Your task to perform on an android device: check out phone information Image 0: 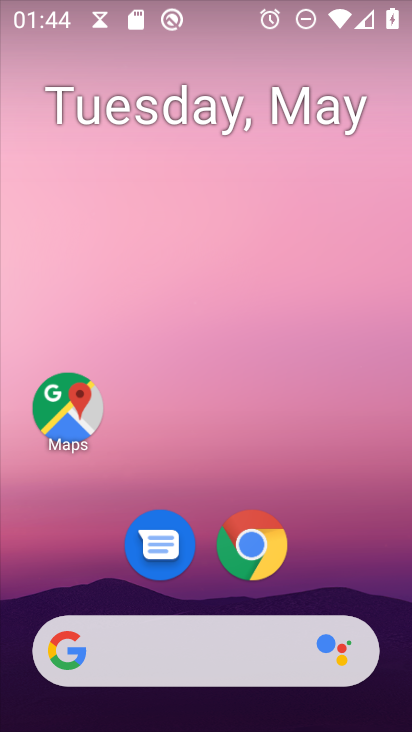
Step 0: drag from (329, 591) to (312, 0)
Your task to perform on an android device: check out phone information Image 1: 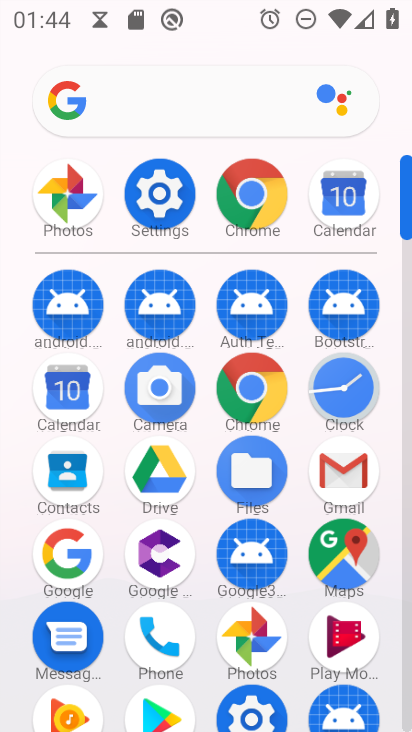
Step 1: click (157, 201)
Your task to perform on an android device: check out phone information Image 2: 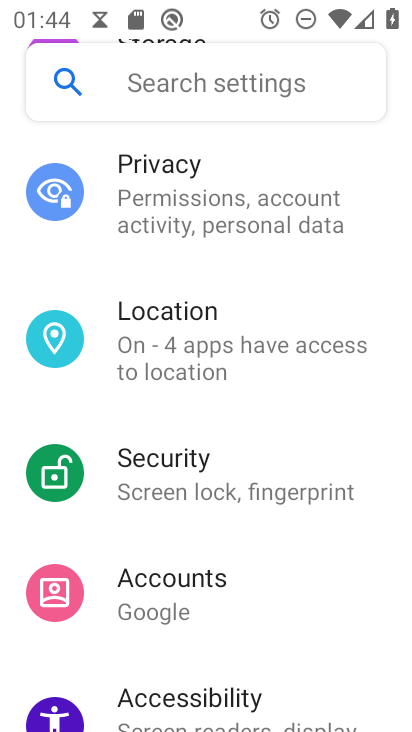
Step 2: drag from (205, 600) to (273, 243)
Your task to perform on an android device: check out phone information Image 3: 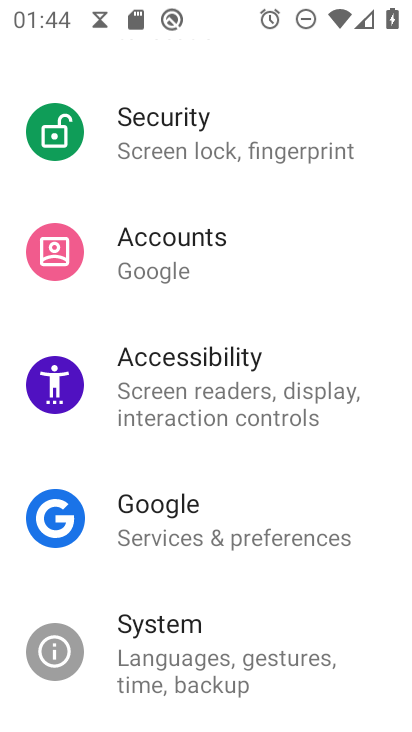
Step 3: drag from (243, 581) to (248, 217)
Your task to perform on an android device: check out phone information Image 4: 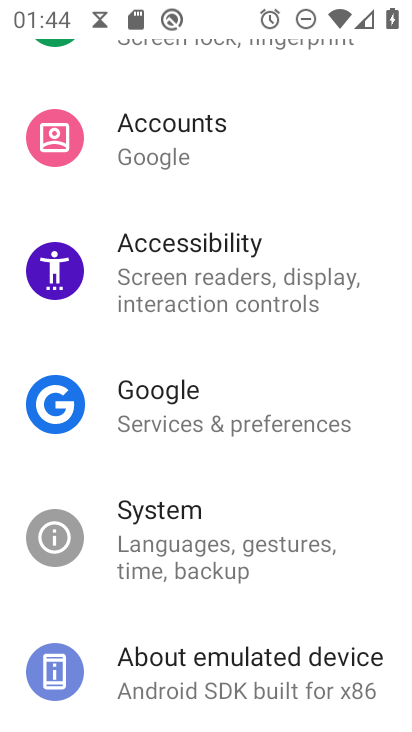
Step 4: click (211, 652)
Your task to perform on an android device: check out phone information Image 5: 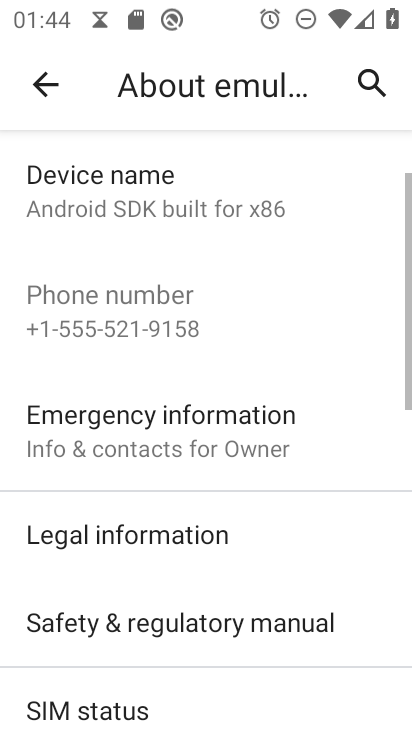
Step 5: task complete